Your task to perform on an android device: Open maps Image 0: 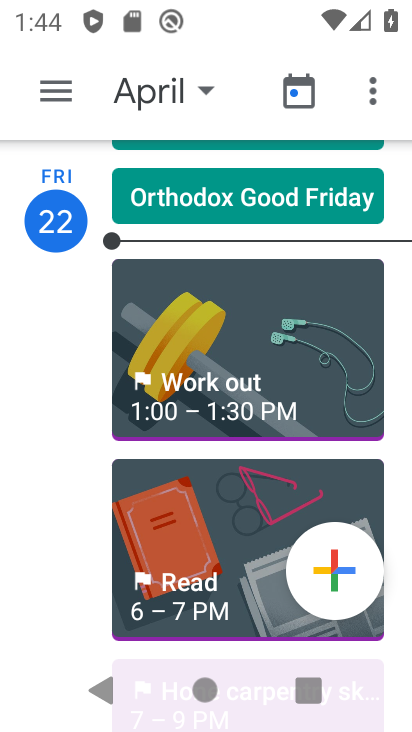
Step 0: press home button
Your task to perform on an android device: Open maps Image 1: 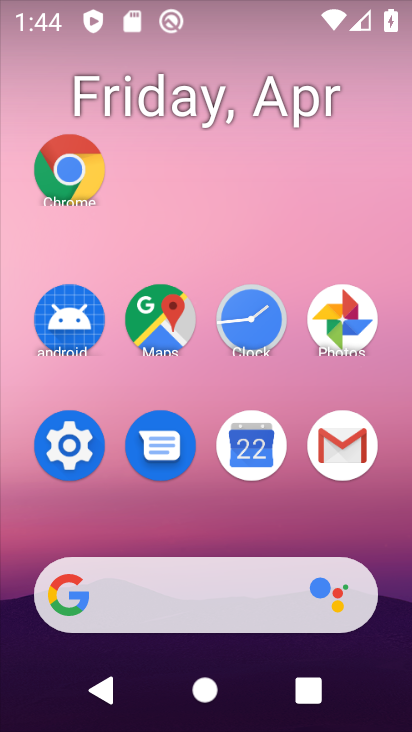
Step 1: click (145, 325)
Your task to perform on an android device: Open maps Image 2: 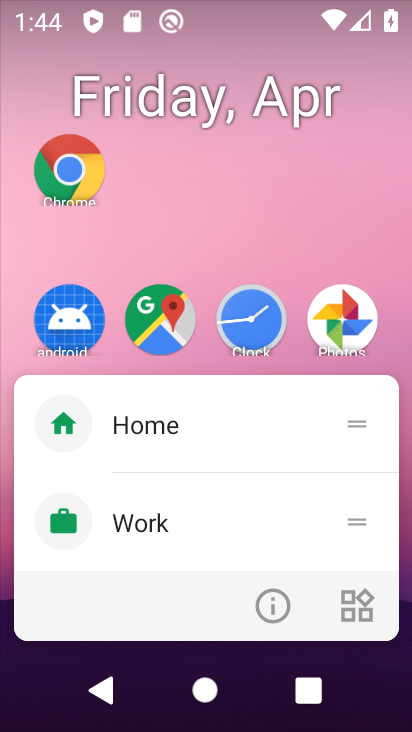
Step 2: click (147, 327)
Your task to perform on an android device: Open maps Image 3: 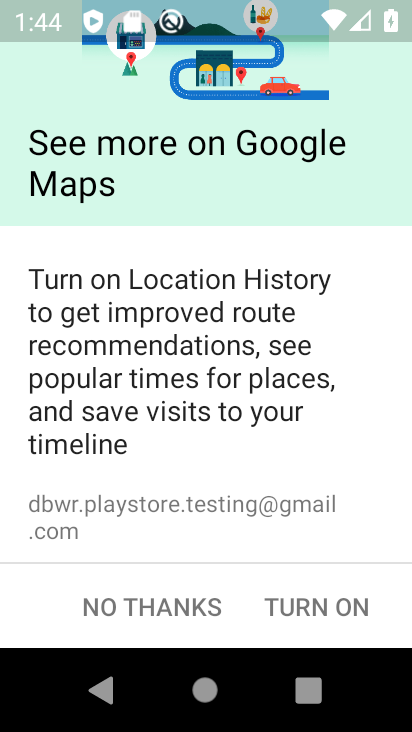
Step 3: click (319, 603)
Your task to perform on an android device: Open maps Image 4: 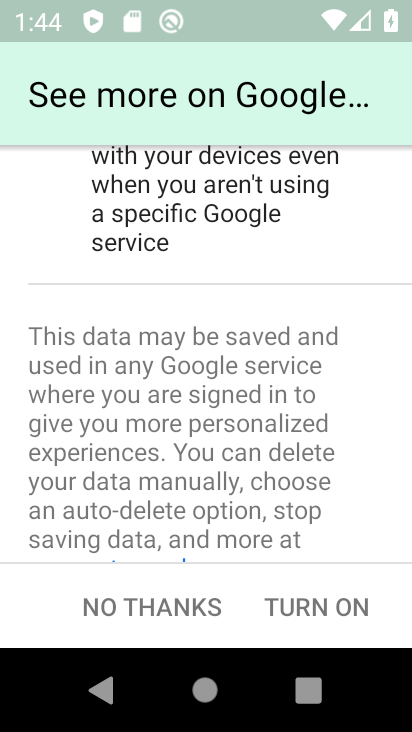
Step 4: click (303, 609)
Your task to perform on an android device: Open maps Image 5: 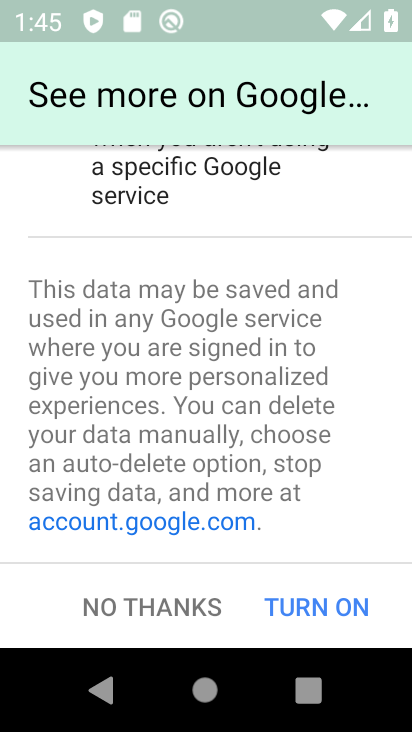
Step 5: click (305, 607)
Your task to perform on an android device: Open maps Image 6: 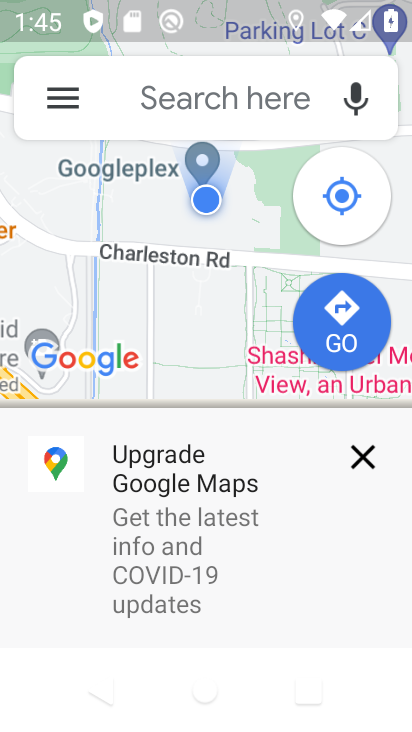
Step 6: click (360, 456)
Your task to perform on an android device: Open maps Image 7: 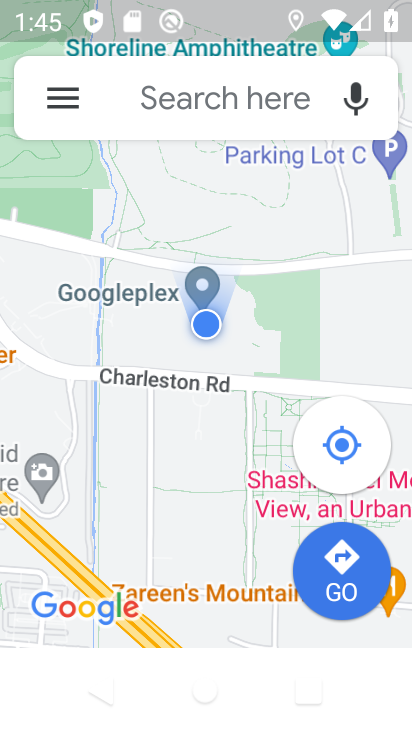
Step 7: task complete